Your task to perform on an android device: make emails show in primary in the gmail app Image 0: 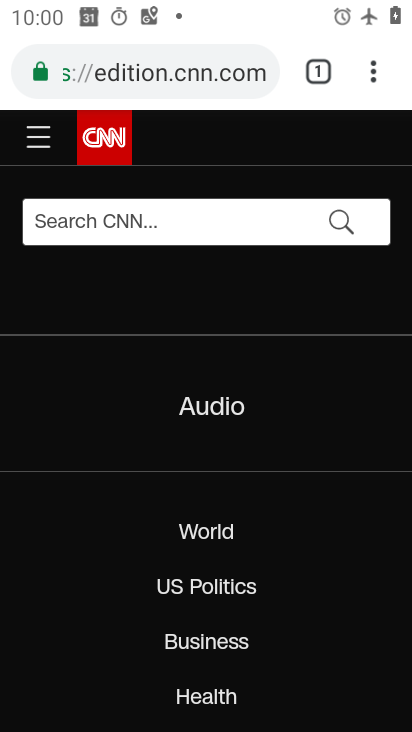
Step 0: press home button
Your task to perform on an android device: make emails show in primary in the gmail app Image 1: 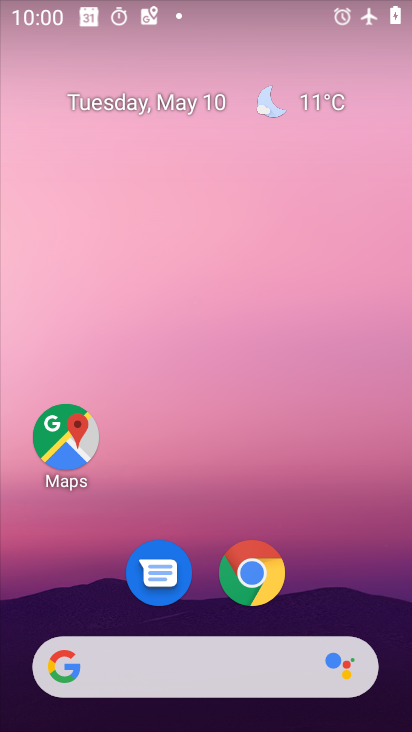
Step 1: drag from (341, 609) to (284, 37)
Your task to perform on an android device: make emails show in primary in the gmail app Image 2: 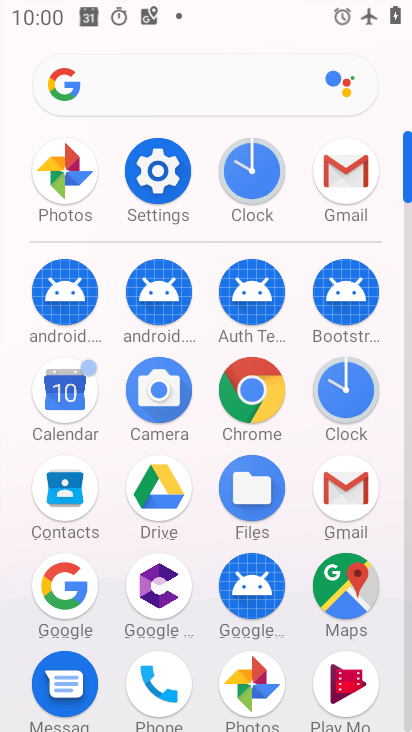
Step 2: click (331, 183)
Your task to perform on an android device: make emails show in primary in the gmail app Image 3: 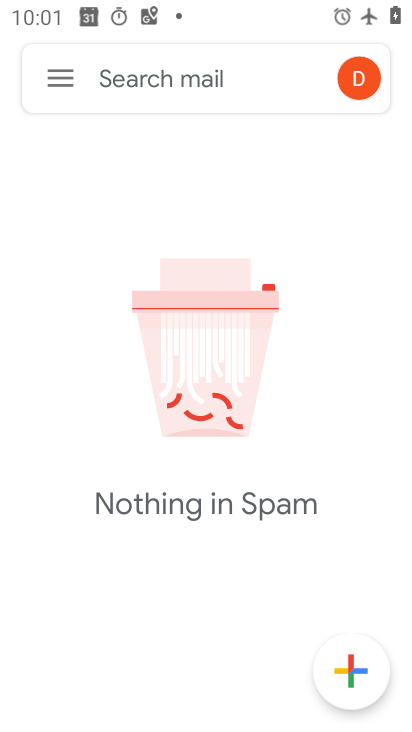
Step 3: click (77, 82)
Your task to perform on an android device: make emails show in primary in the gmail app Image 4: 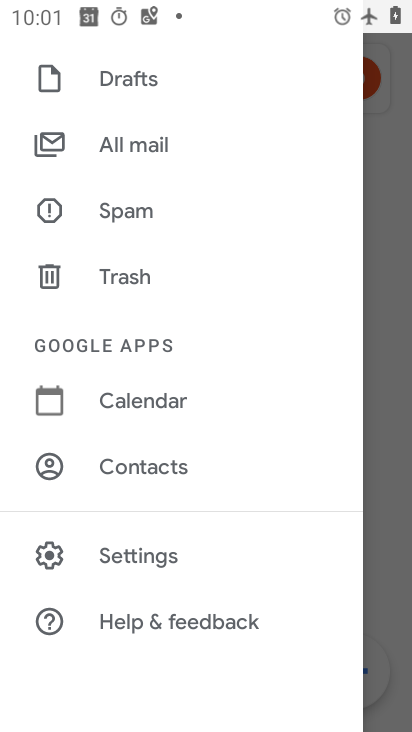
Step 4: click (142, 556)
Your task to perform on an android device: make emails show in primary in the gmail app Image 5: 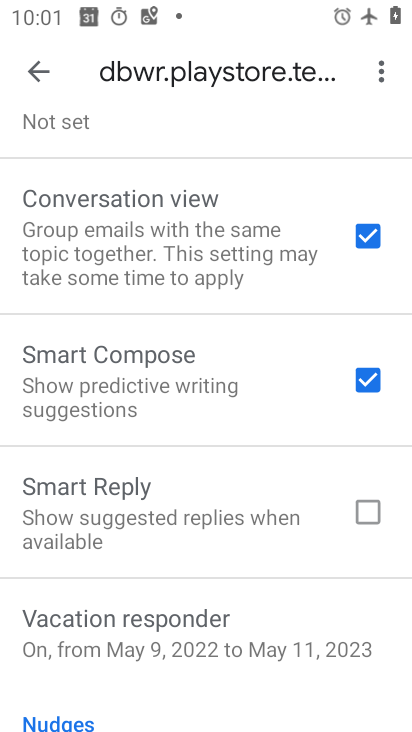
Step 5: drag from (109, 253) to (87, 683)
Your task to perform on an android device: make emails show in primary in the gmail app Image 6: 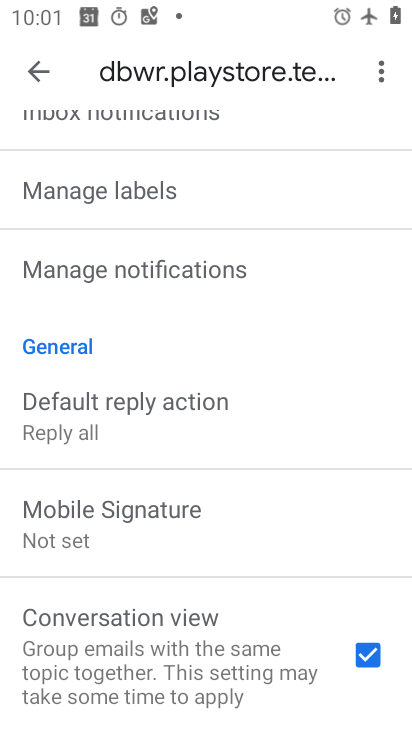
Step 6: drag from (125, 363) to (127, 677)
Your task to perform on an android device: make emails show in primary in the gmail app Image 7: 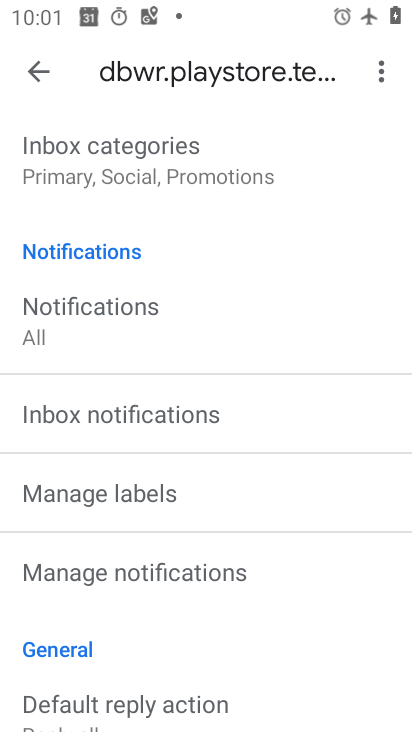
Step 7: click (87, 191)
Your task to perform on an android device: make emails show in primary in the gmail app Image 8: 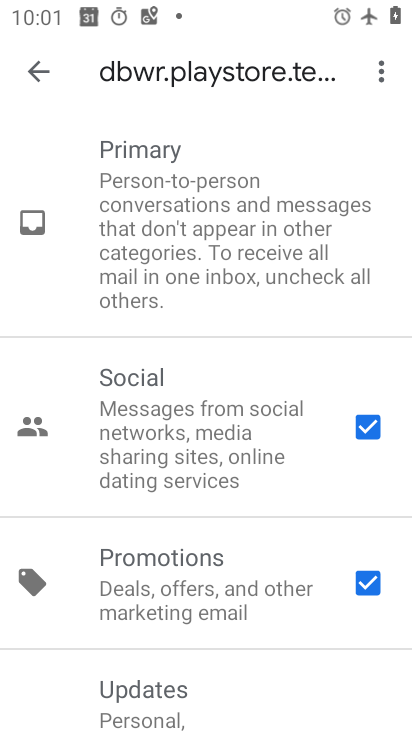
Step 8: click (361, 430)
Your task to perform on an android device: make emails show in primary in the gmail app Image 9: 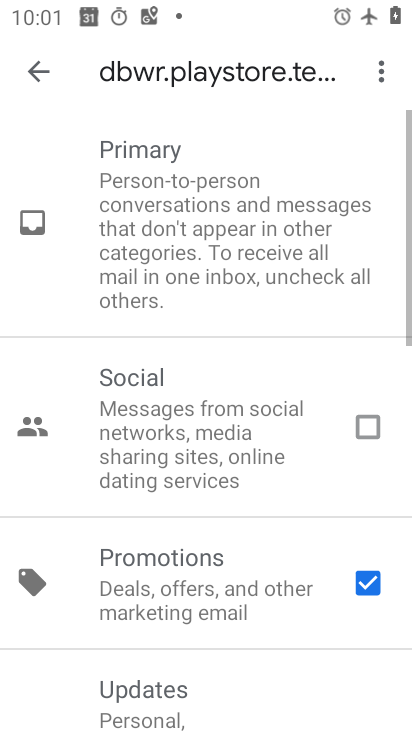
Step 9: click (370, 588)
Your task to perform on an android device: make emails show in primary in the gmail app Image 10: 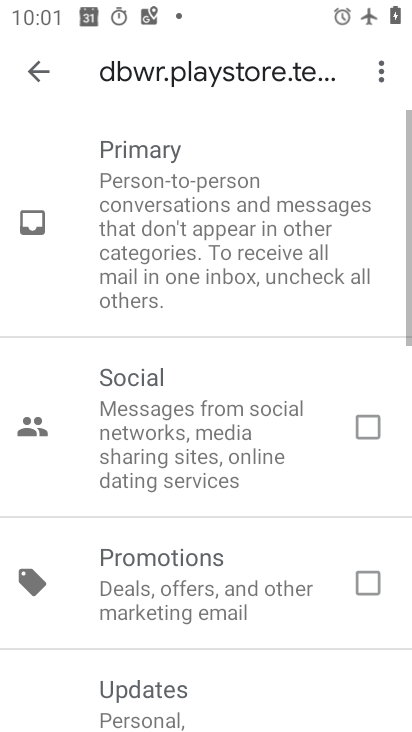
Step 10: drag from (246, 621) to (235, 291)
Your task to perform on an android device: make emails show in primary in the gmail app Image 11: 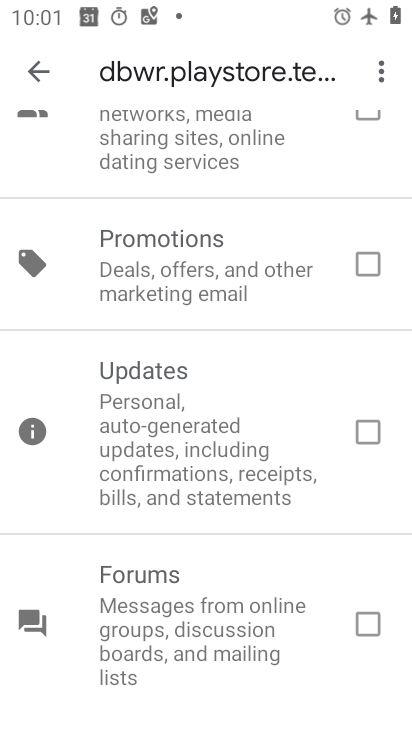
Step 11: click (34, 84)
Your task to perform on an android device: make emails show in primary in the gmail app Image 12: 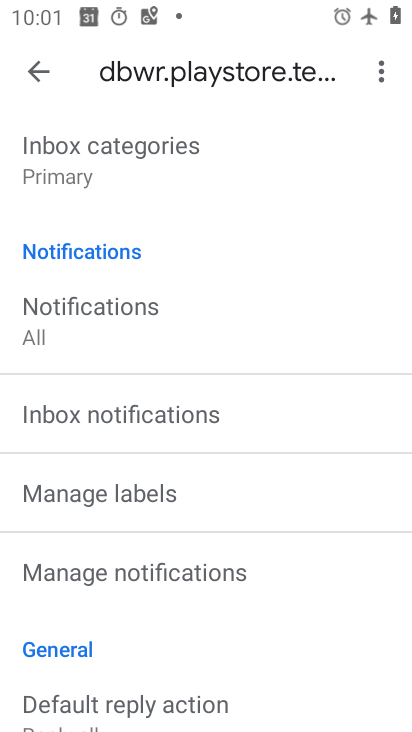
Step 12: task complete